Your task to perform on an android device: delete location history Image 0: 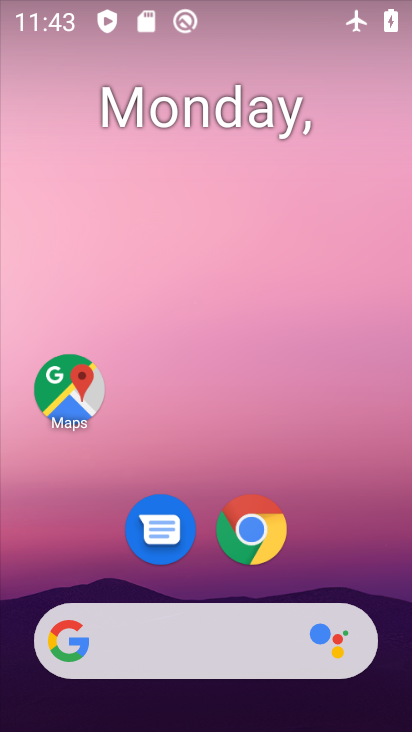
Step 0: drag from (206, 724) to (165, 121)
Your task to perform on an android device: delete location history Image 1: 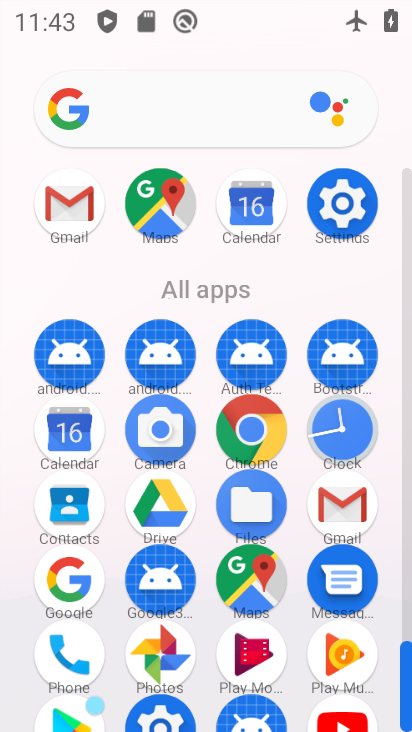
Step 1: click (150, 211)
Your task to perform on an android device: delete location history Image 2: 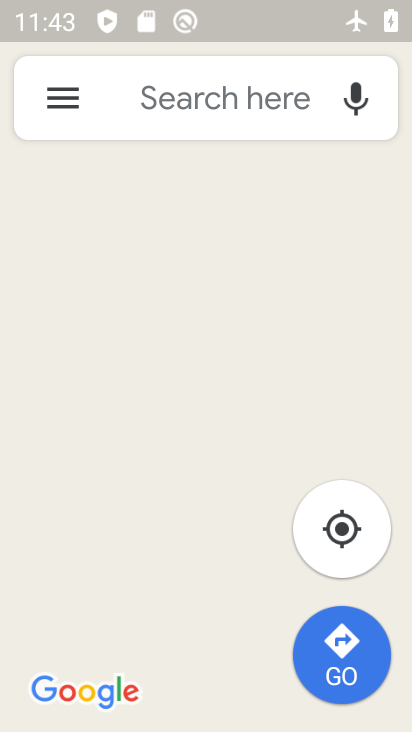
Step 2: click (62, 92)
Your task to perform on an android device: delete location history Image 3: 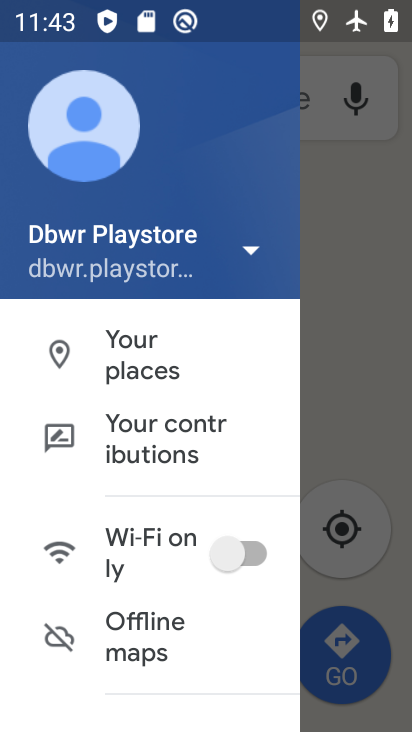
Step 3: task complete